Your task to perform on an android device: When is my next meeting? Image 0: 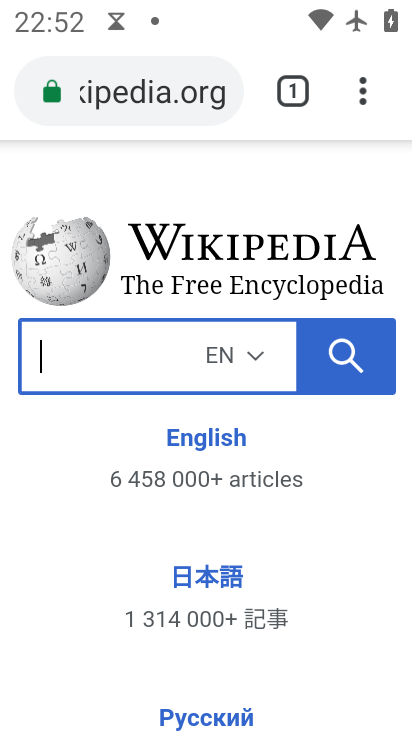
Step 0: press home button
Your task to perform on an android device: When is my next meeting? Image 1: 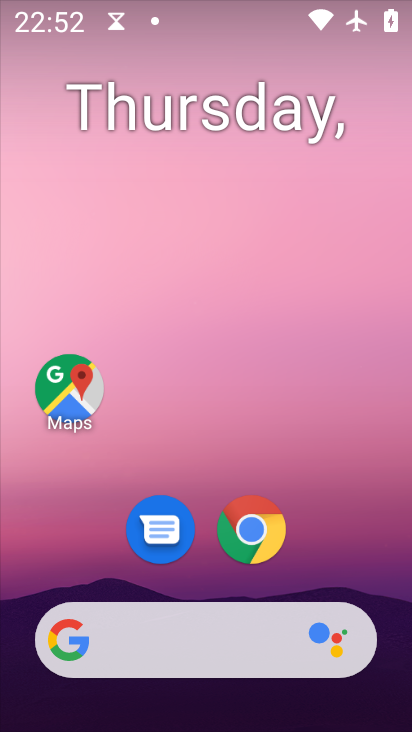
Step 1: drag from (217, 458) to (187, 0)
Your task to perform on an android device: When is my next meeting? Image 2: 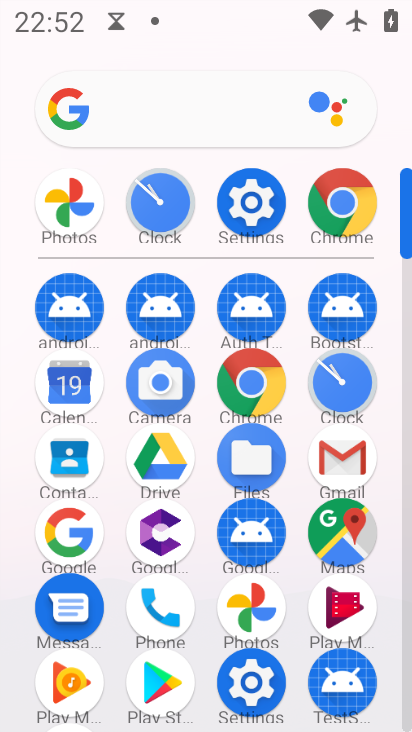
Step 2: click (73, 376)
Your task to perform on an android device: When is my next meeting? Image 3: 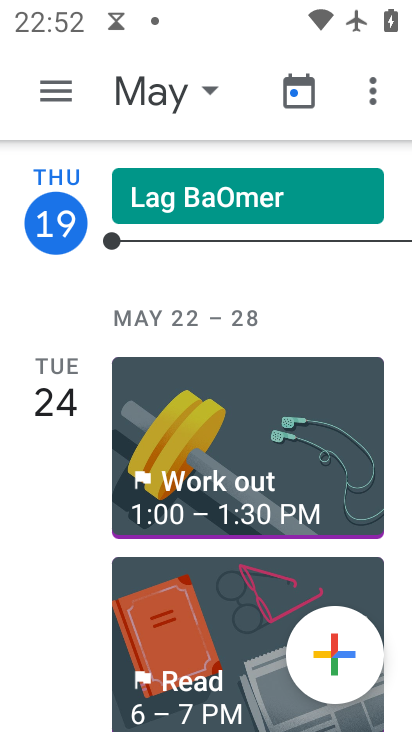
Step 3: click (129, 108)
Your task to perform on an android device: When is my next meeting? Image 4: 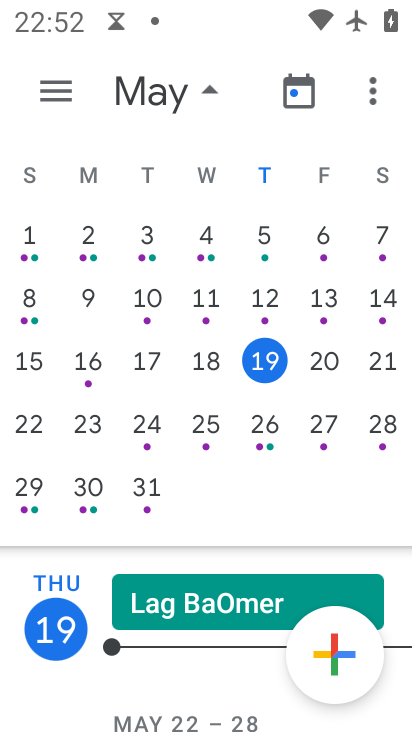
Step 4: click (267, 364)
Your task to perform on an android device: When is my next meeting? Image 5: 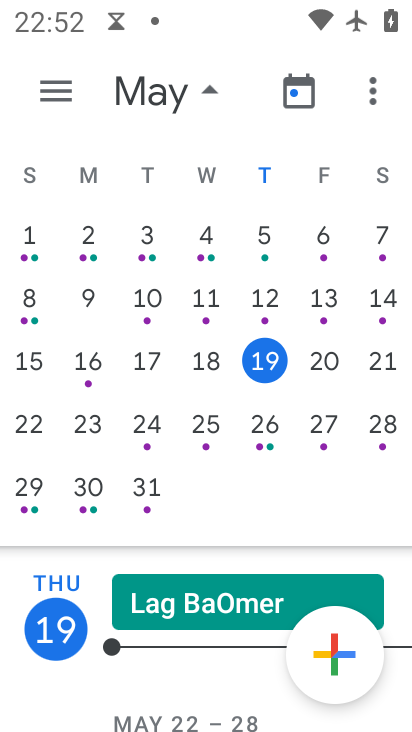
Step 5: task complete